Your task to perform on an android device: turn on data saver in the chrome app Image 0: 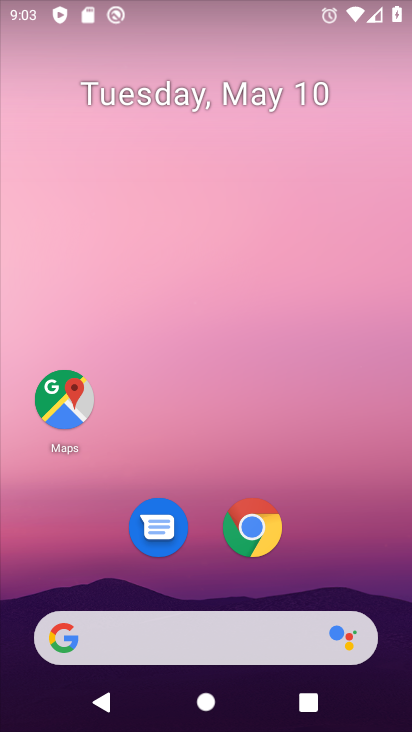
Step 0: click (265, 526)
Your task to perform on an android device: turn on data saver in the chrome app Image 1: 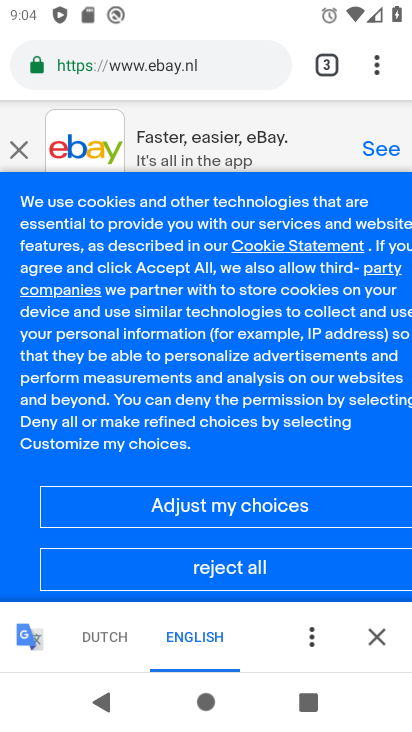
Step 1: click (378, 60)
Your task to perform on an android device: turn on data saver in the chrome app Image 2: 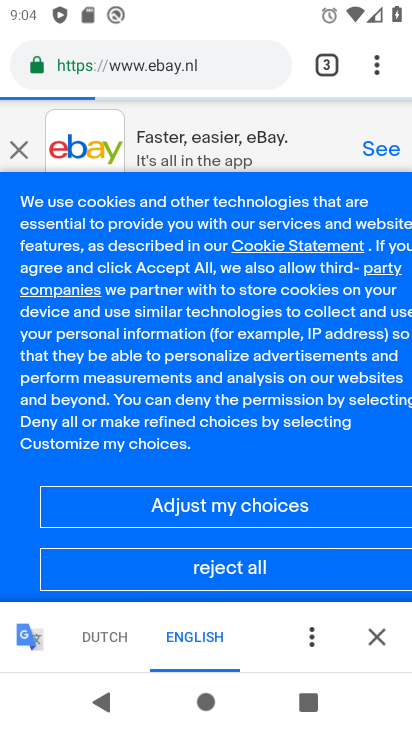
Step 2: drag from (378, 60) to (152, 577)
Your task to perform on an android device: turn on data saver in the chrome app Image 3: 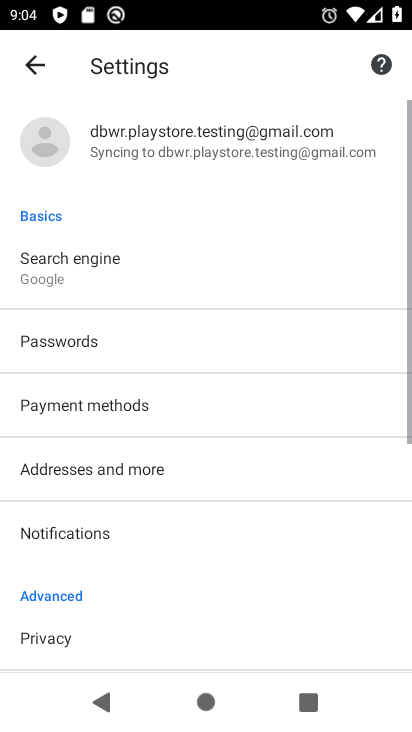
Step 3: drag from (151, 576) to (149, 15)
Your task to perform on an android device: turn on data saver in the chrome app Image 4: 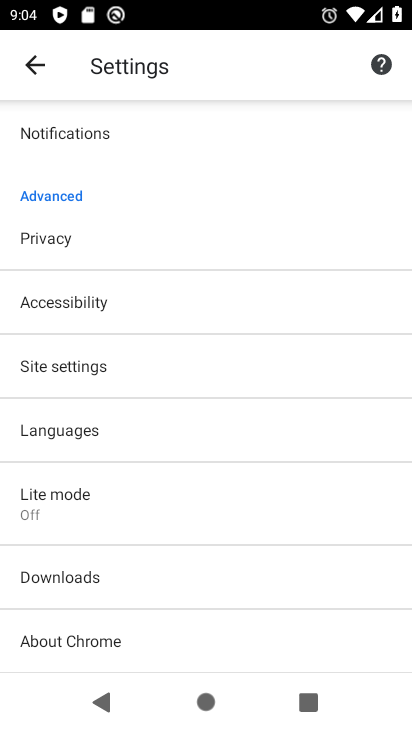
Step 4: click (76, 494)
Your task to perform on an android device: turn on data saver in the chrome app Image 5: 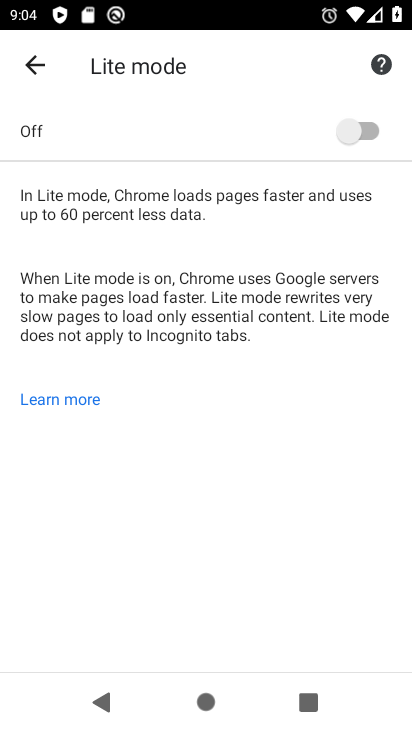
Step 5: click (372, 125)
Your task to perform on an android device: turn on data saver in the chrome app Image 6: 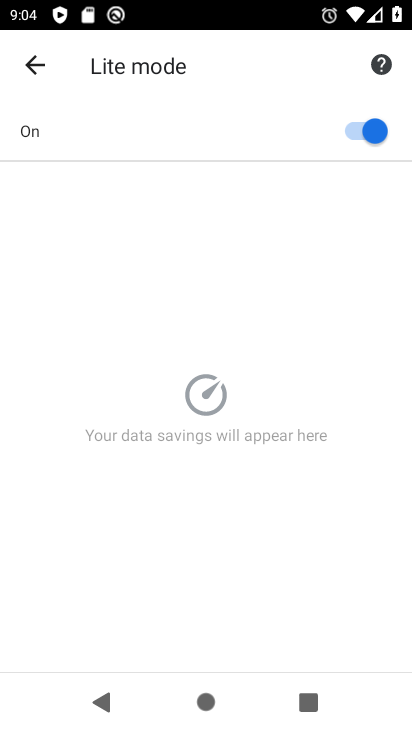
Step 6: task complete